Your task to perform on an android device: Open Google Chrome and open the bookmarks view Image 0: 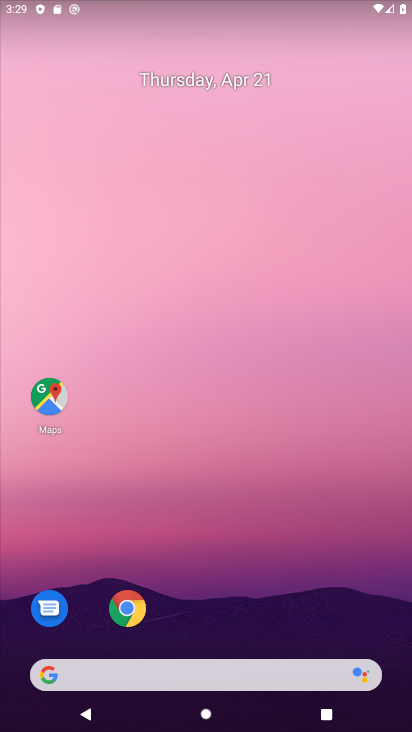
Step 0: click (130, 616)
Your task to perform on an android device: Open Google Chrome and open the bookmarks view Image 1: 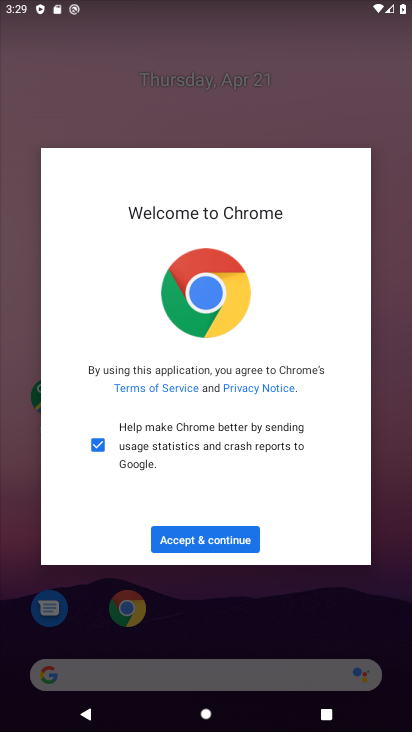
Step 1: click (211, 542)
Your task to perform on an android device: Open Google Chrome and open the bookmarks view Image 2: 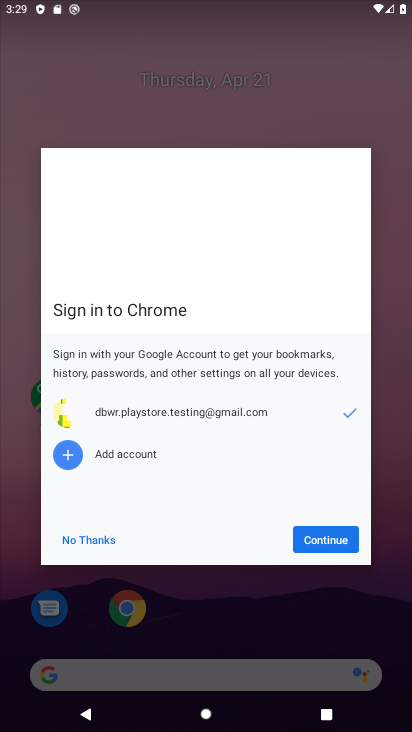
Step 2: click (332, 540)
Your task to perform on an android device: Open Google Chrome and open the bookmarks view Image 3: 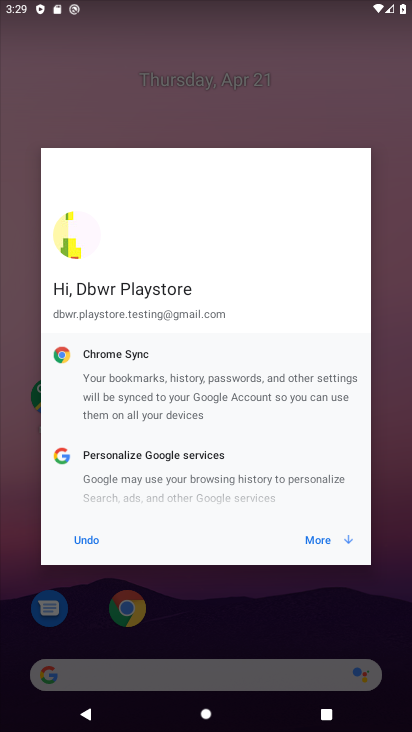
Step 3: click (332, 540)
Your task to perform on an android device: Open Google Chrome and open the bookmarks view Image 4: 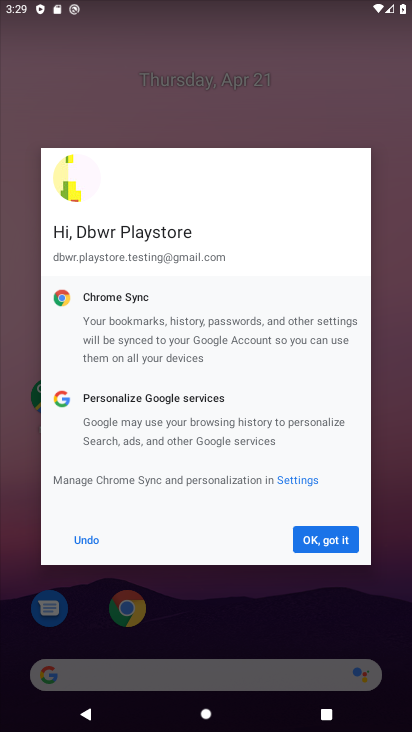
Step 4: click (332, 540)
Your task to perform on an android device: Open Google Chrome and open the bookmarks view Image 5: 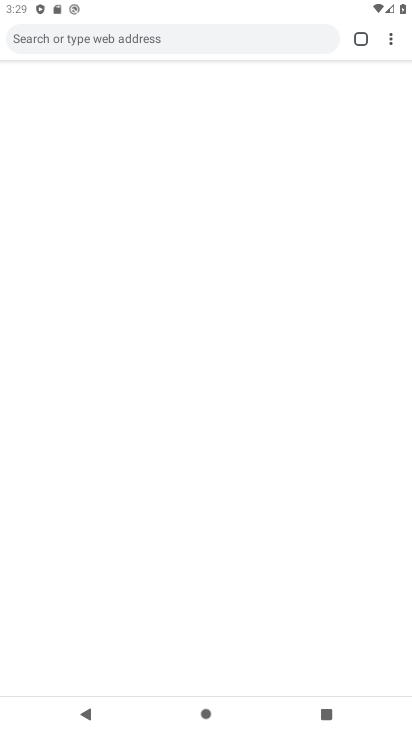
Step 5: click (332, 540)
Your task to perform on an android device: Open Google Chrome and open the bookmarks view Image 6: 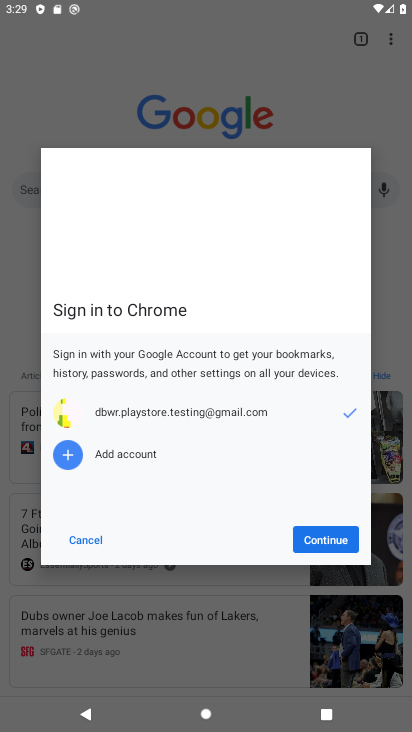
Step 6: click (362, 77)
Your task to perform on an android device: Open Google Chrome and open the bookmarks view Image 7: 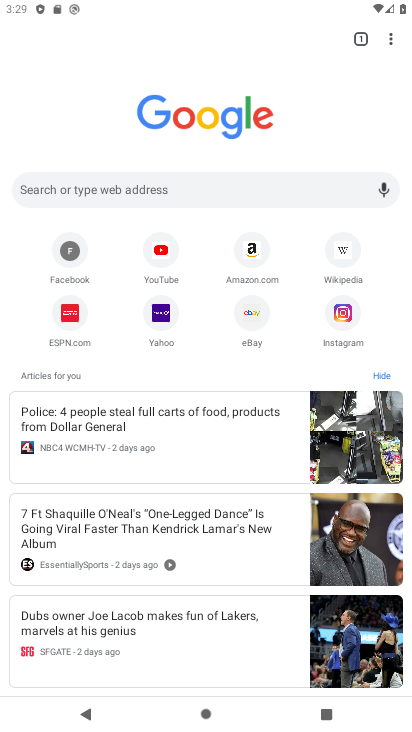
Step 7: click (391, 43)
Your task to perform on an android device: Open Google Chrome and open the bookmarks view Image 8: 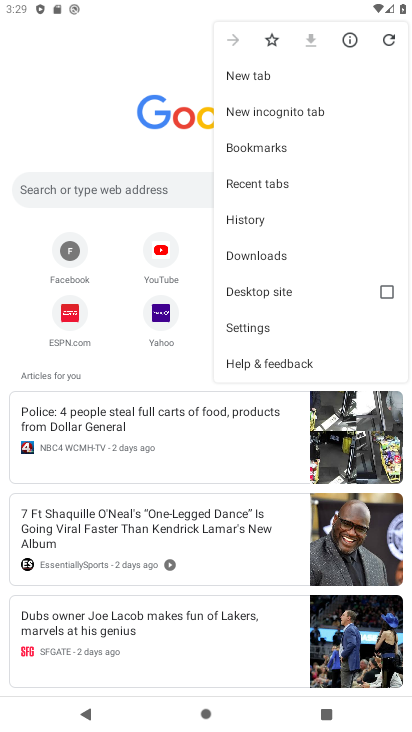
Step 8: click (268, 149)
Your task to perform on an android device: Open Google Chrome and open the bookmarks view Image 9: 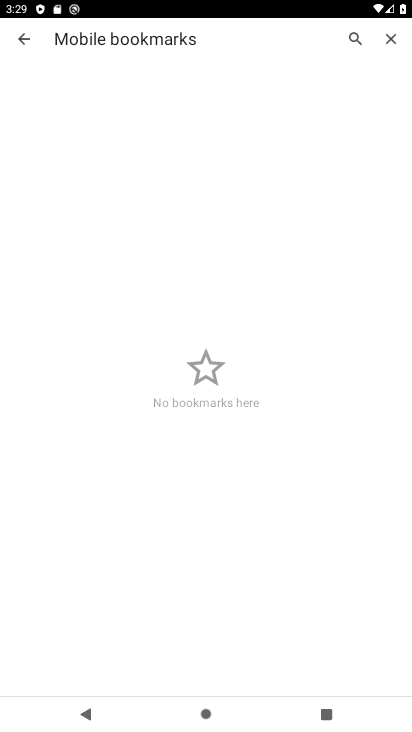
Step 9: task complete